Your task to perform on an android device: Search for Italian restaurants on Maps Image 0: 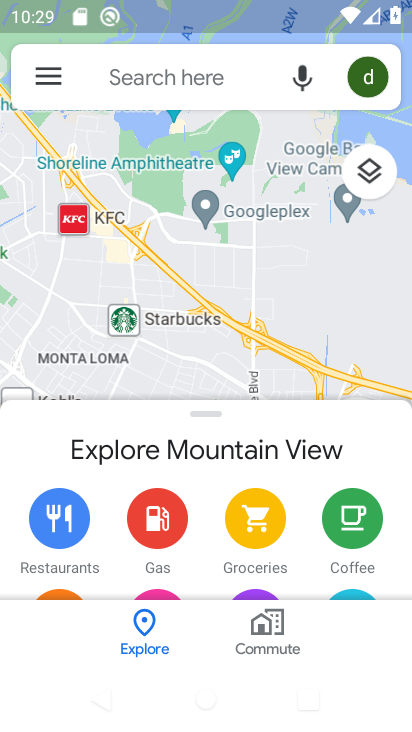
Step 0: press home button
Your task to perform on an android device: Search for Italian restaurants on Maps Image 1: 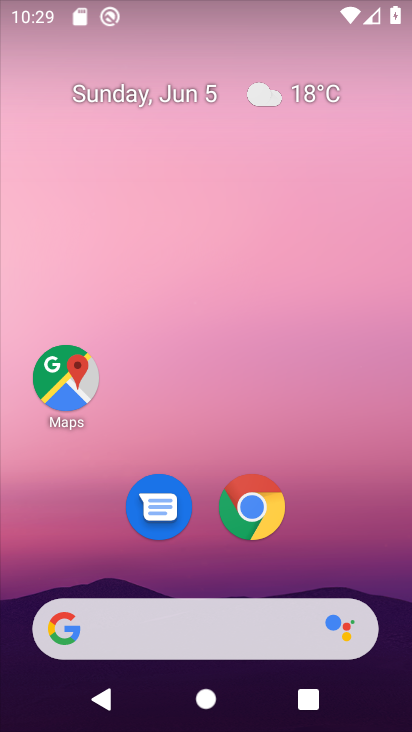
Step 1: click (47, 363)
Your task to perform on an android device: Search for Italian restaurants on Maps Image 2: 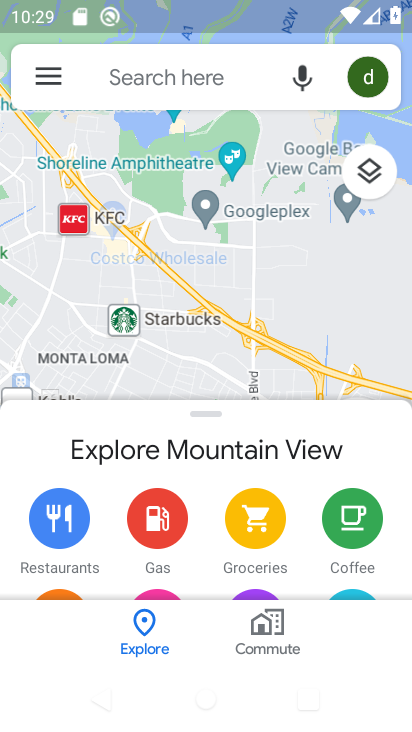
Step 2: click (177, 64)
Your task to perform on an android device: Search for Italian restaurants on Maps Image 3: 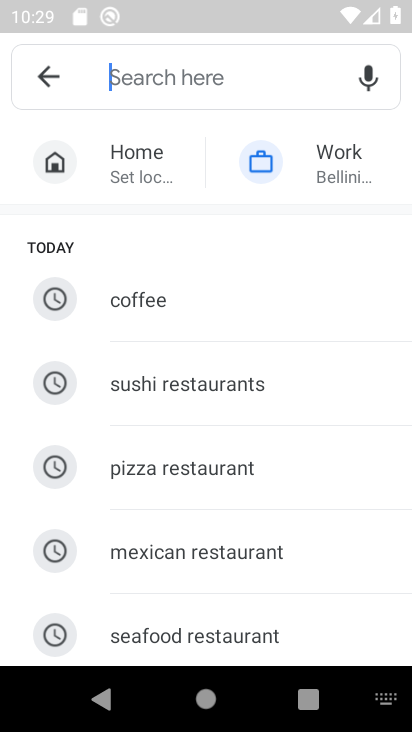
Step 3: type "italian restaurants"
Your task to perform on an android device: Search for Italian restaurants on Maps Image 4: 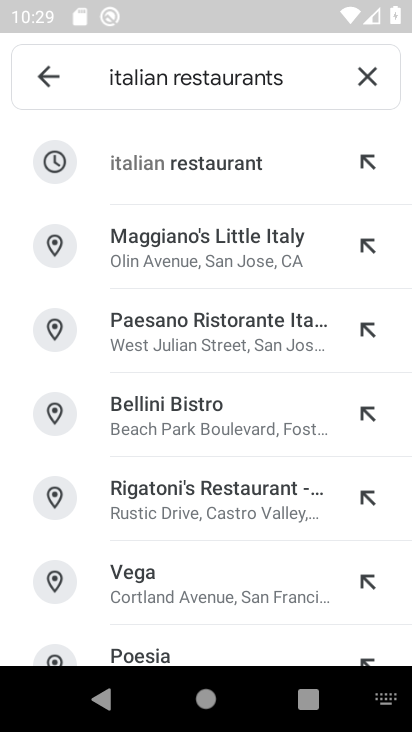
Step 4: click (233, 172)
Your task to perform on an android device: Search for Italian restaurants on Maps Image 5: 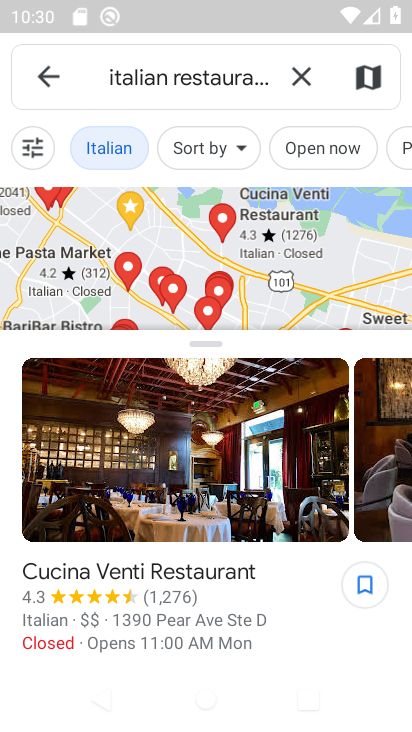
Step 5: task complete